Your task to perform on an android device: open the mobile data screen to see how much data has been used Image 0: 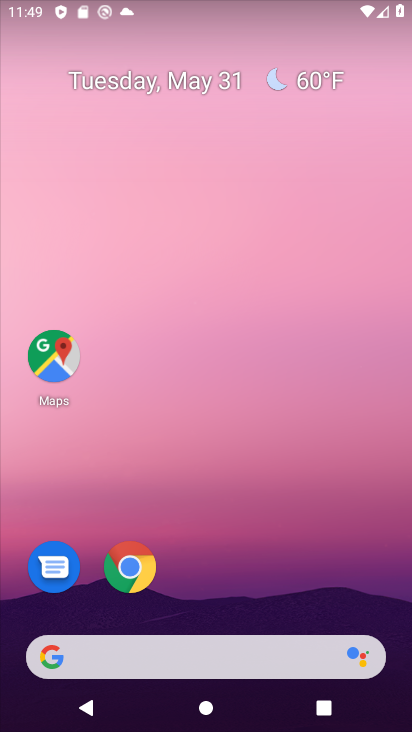
Step 0: drag from (221, 654) to (64, 0)
Your task to perform on an android device: open the mobile data screen to see how much data has been used Image 1: 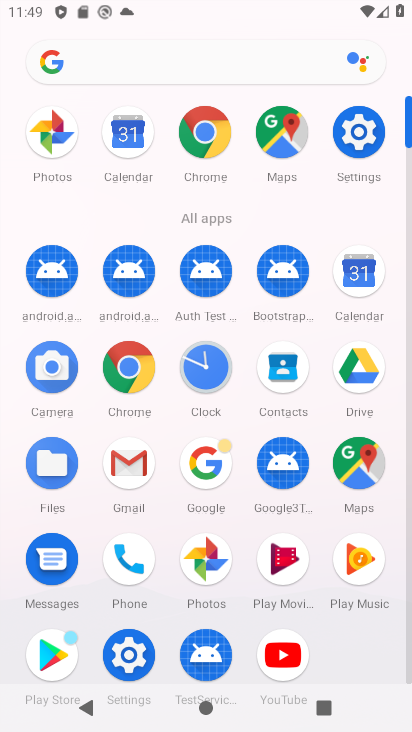
Step 1: click (366, 127)
Your task to perform on an android device: open the mobile data screen to see how much data has been used Image 2: 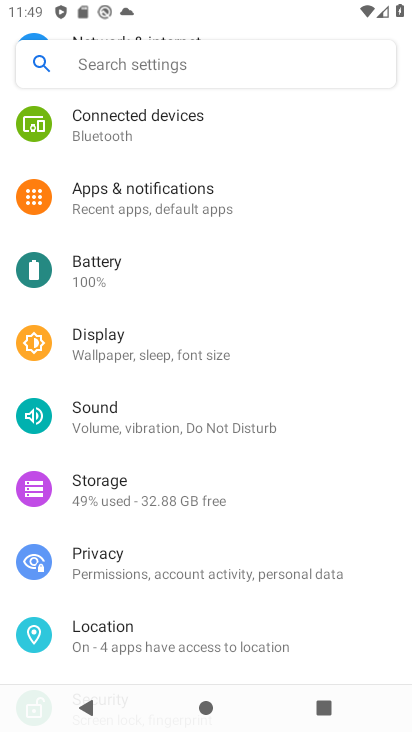
Step 2: drag from (160, 134) to (222, 490)
Your task to perform on an android device: open the mobile data screen to see how much data has been used Image 3: 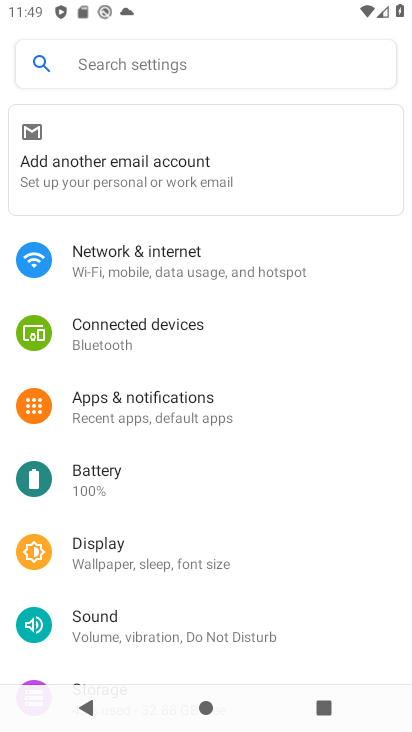
Step 3: click (186, 264)
Your task to perform on an android device: open the mobile data screen to see how much data has been used Image 4: 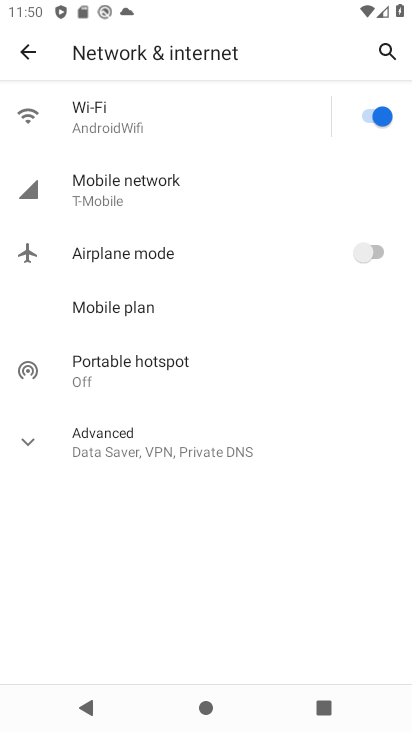
Step 4: click (170, 192)
Your task to perform on an android device: open the mobile data screen to see how much data has been used Image 5: 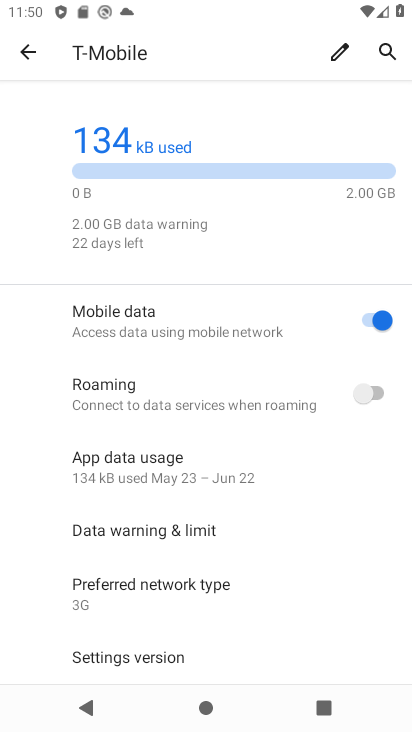
Step 5: task complete